Your task to perform on an android device: delete the emails in spam in the gmail app Image 0: 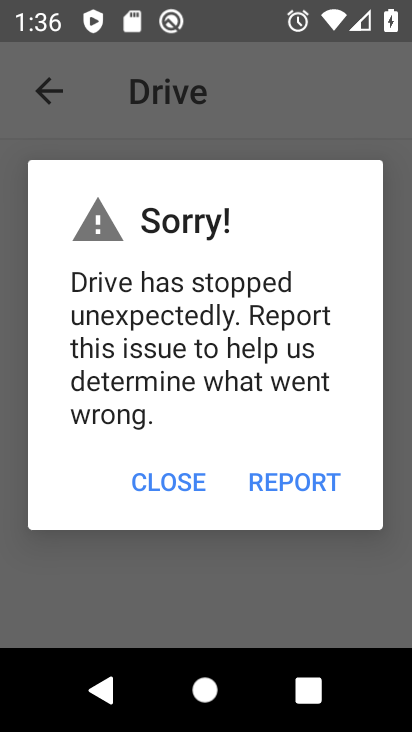
Step 0: press home button
Your task to perform on an android device: delete the emails in spam in the gmail app Image 1: 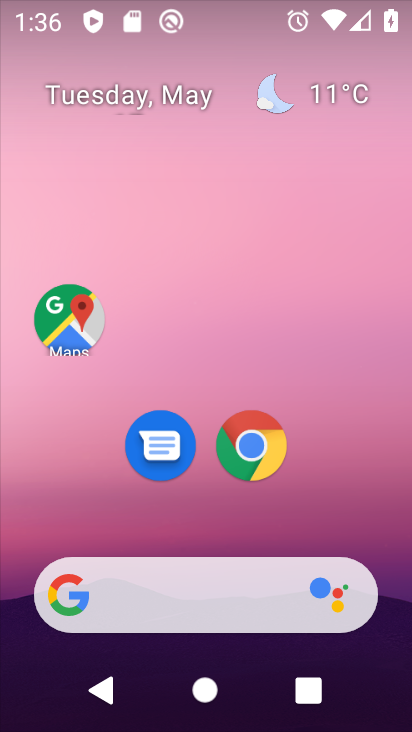
Step 1: drag from (327, 514) to (388, 67)
Your task to perform on an android device: delete the emails in spam in the gmail app Image 2: 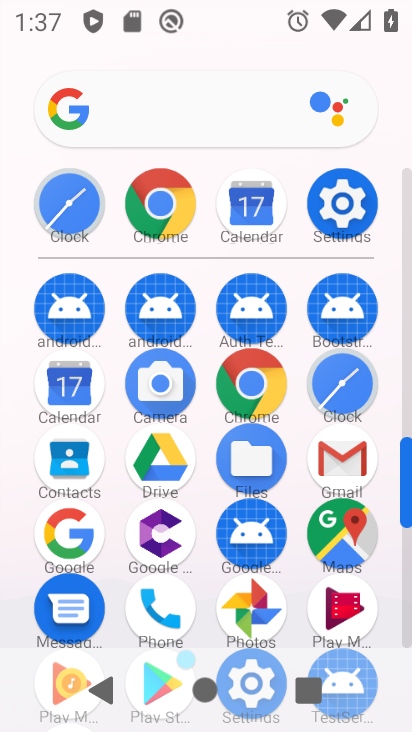
Step 2: click (347, 451)
Your task to perform on an android device: delete the emails in spam in the gmail app Image 3: 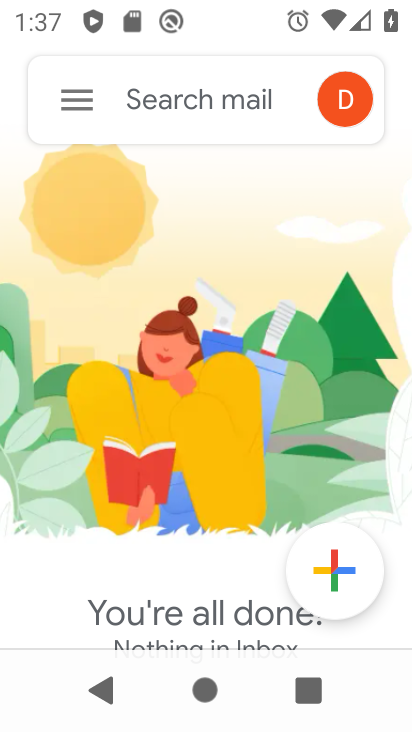
Step 3: click (66, 102)
Your task to perform on an android device: delete the emails in spam in the gmail app Image 4: 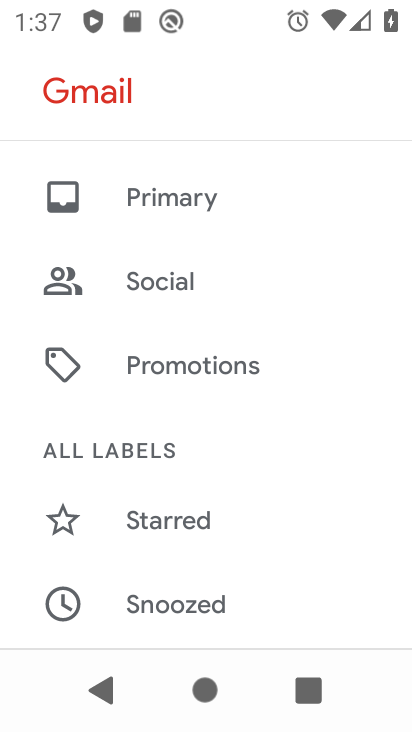
Step 4: drag from (295, 487) to (306, 2)
Your task to perform on an android device: delete the emails in spam in the gmail app Image 5: 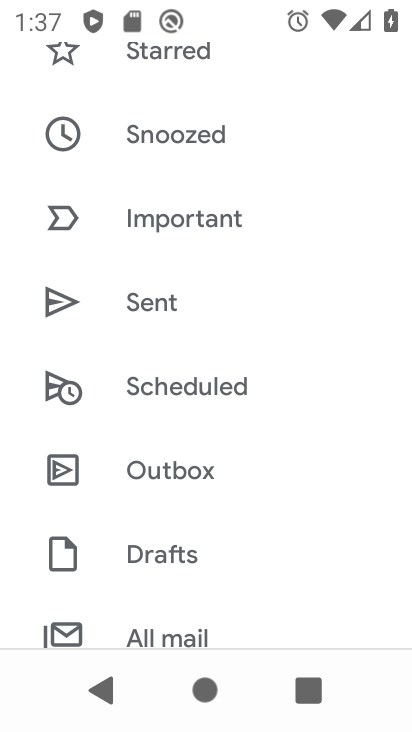
Step 5: drag from (208, 592) to (229, 406)
Your task to perform on an android device: delete the emails in spam in the gmail app Image 6: 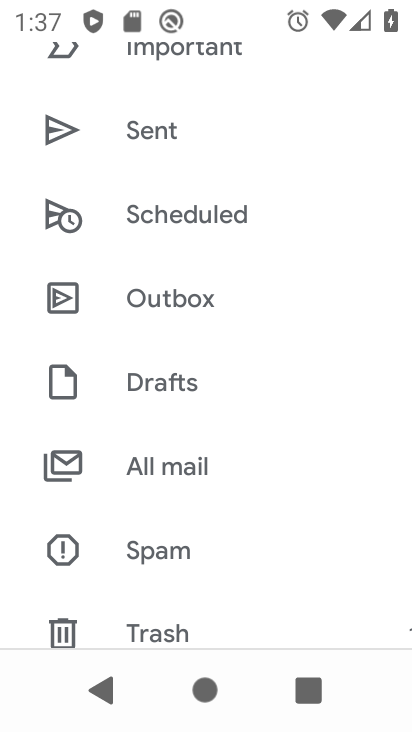
Step 6: click (185, 549)
Your task to perform on an android device: delete the emails in spam in the gmail app Image 7: 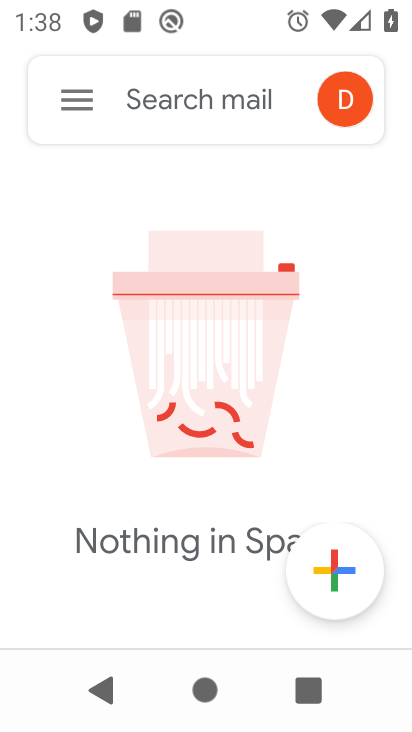
Step 7: task complete